Your task to perform on an android device: When is my next meeting? Image 0: 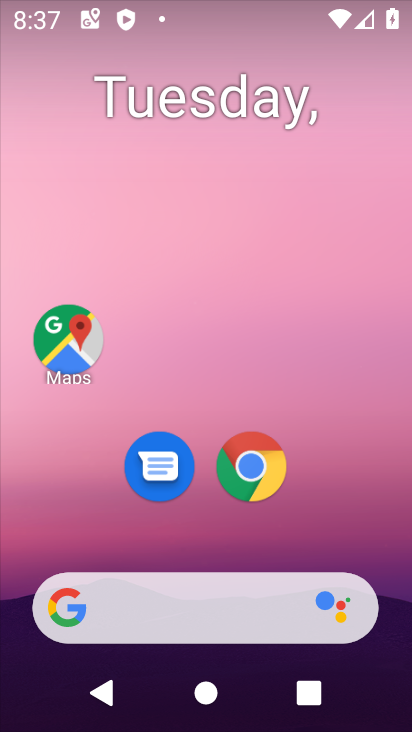
Step 0: drag from (365, 546) to (334, 187)
Your task to perform on an android device: When is my next meeting? Image 1: 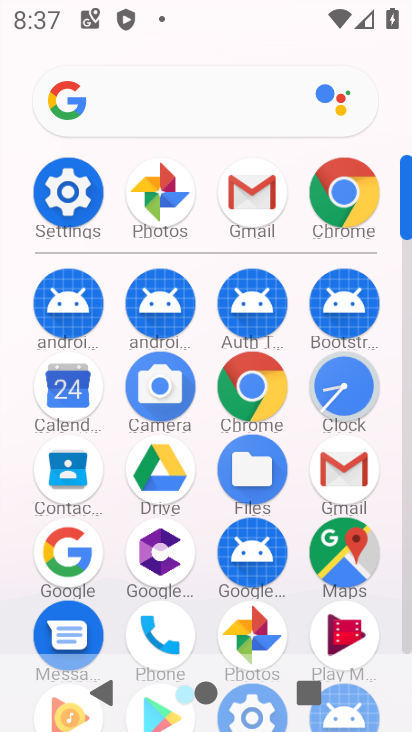
Step 1: click (70, 214)
Your task to perform on an android device: When is my next meeting? Image 2: 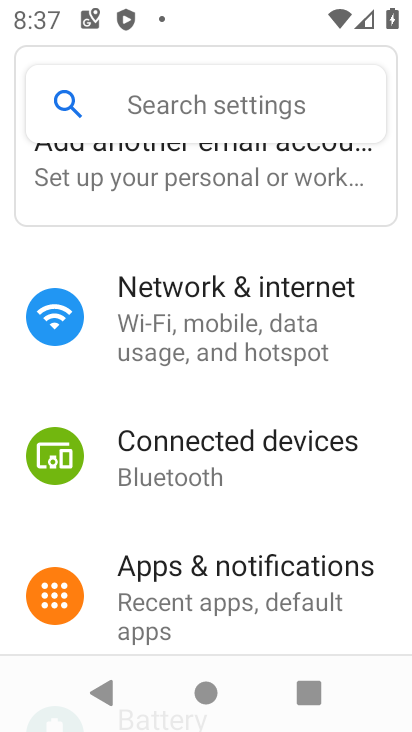
Step 2: press home button
Your task to perform on an android device: When is my next meeting? Image 3: 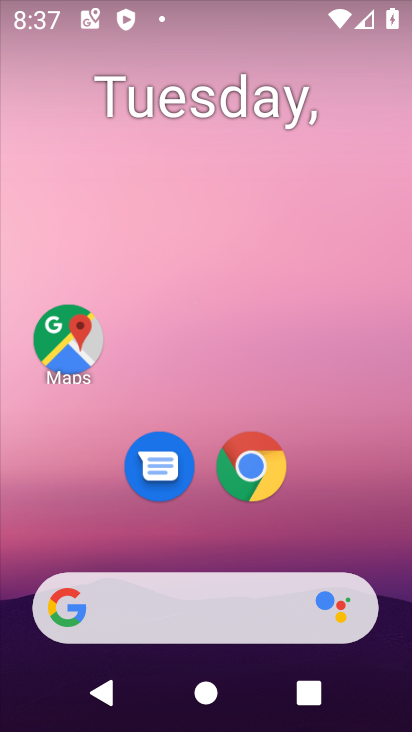
Step 3: drag from (385, 532) to (308, 42)
Your task to perform on an android device: When is my next meeting? Image 4: 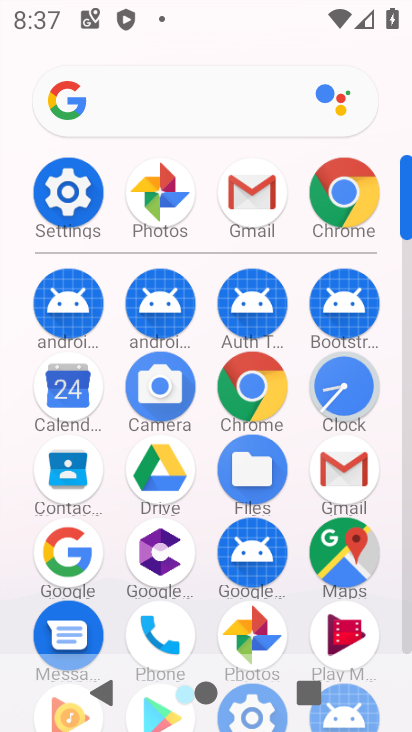
Step 4: click (90, 223)
Your task to perform on an android device: When is my next meeting? Image 5: 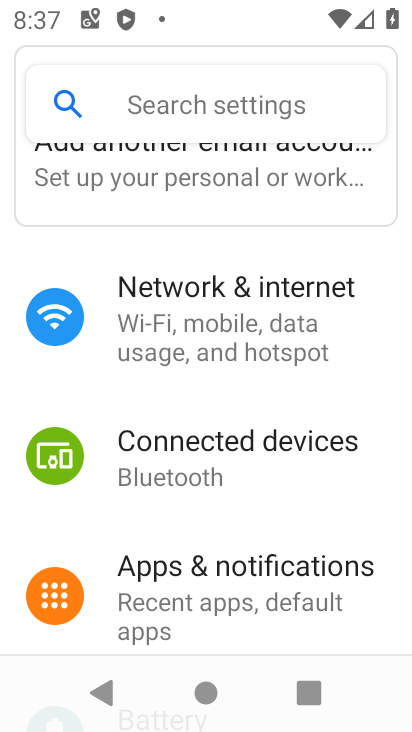
Step 5: press home button
Your task to perform on an android device: When is my next meeting? Image 6: 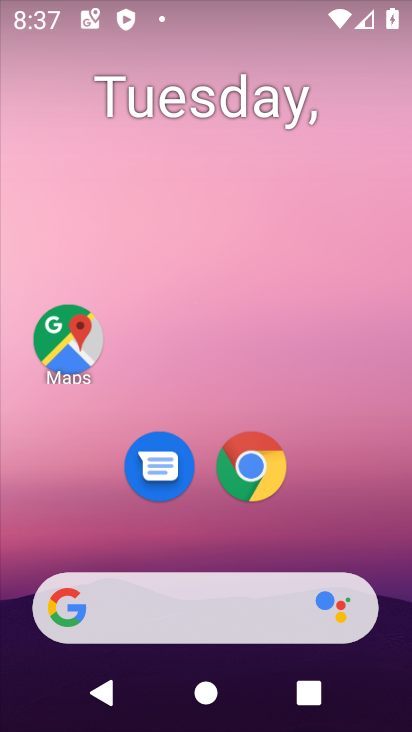
Step 6: drag from (319, 459) to (293, 125)
Your task to perform on an android device: When is my next meeting? Image 7: 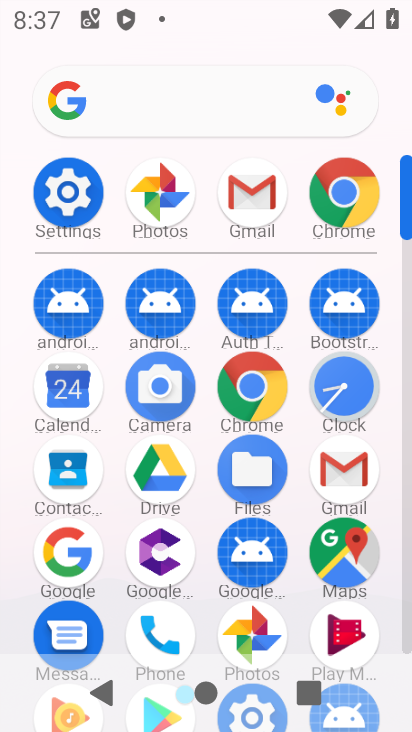
Step 7: click (55, 491)
Your task to perform on an android device: When is my next meeting? Image 8: 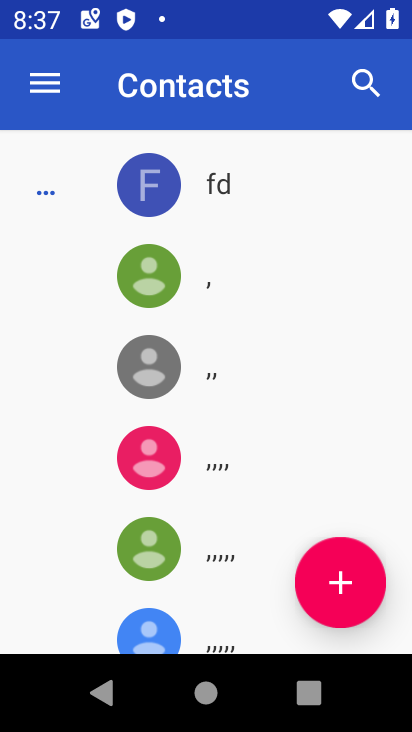
Step 8: task complete